Your task to perform on an android device: Open Android settings Image 0: 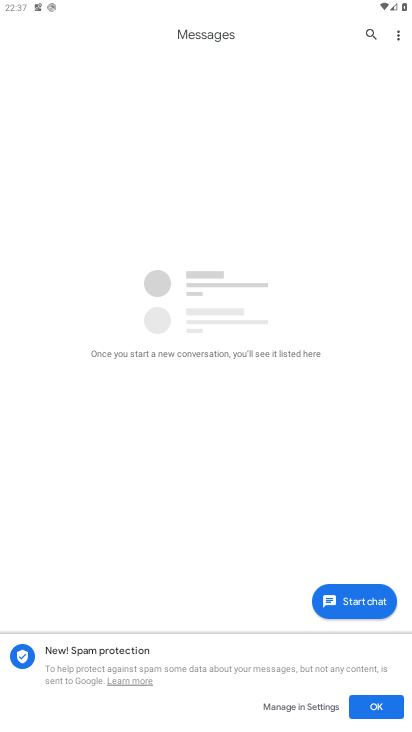
Step 0: press home button
Your task to perform on an android device: Open Android settings Image 1: 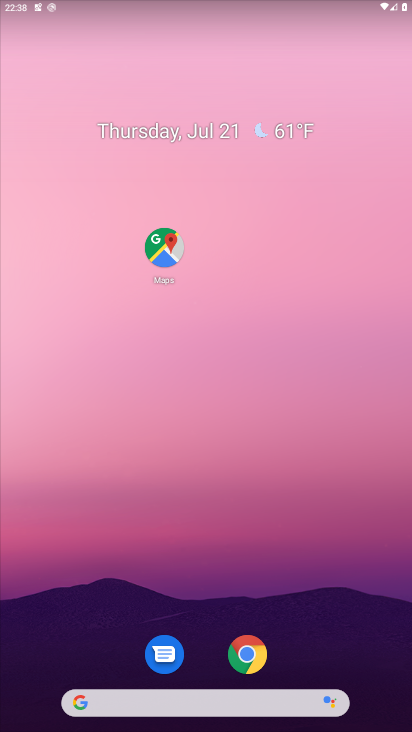
Step 1: drag from (40, 693) to (271, 222)
Your task to perform on an android device: Open Android settings Image 2: 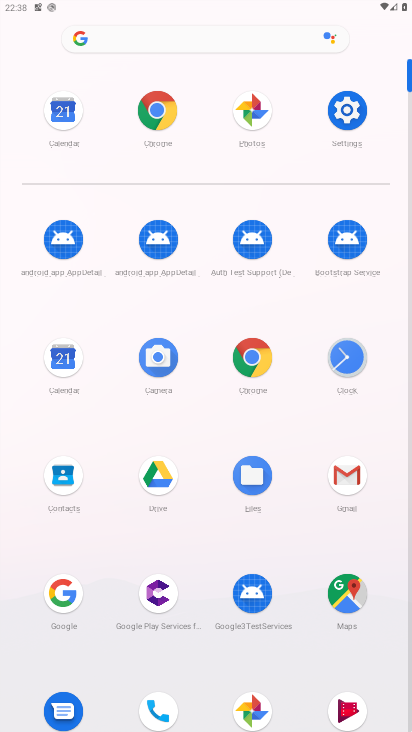
Step 2: click (352, 113)
Your task to perform on an android device: Open Android settings Image 3: 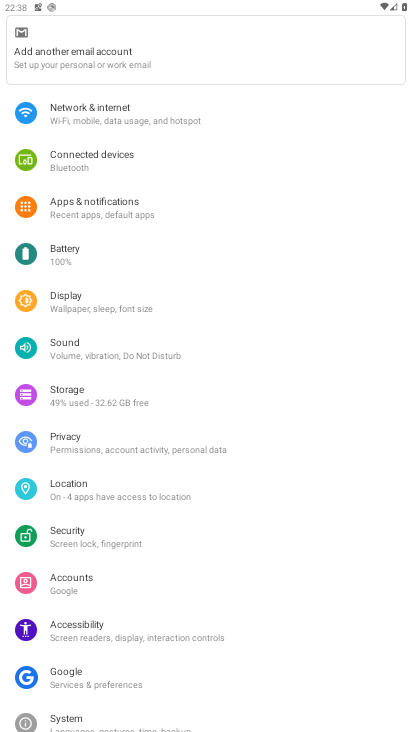
Step 3: drag from (205, 638) to (212, 342)
Your task to perform on an android device: Open Android settings Image 4: 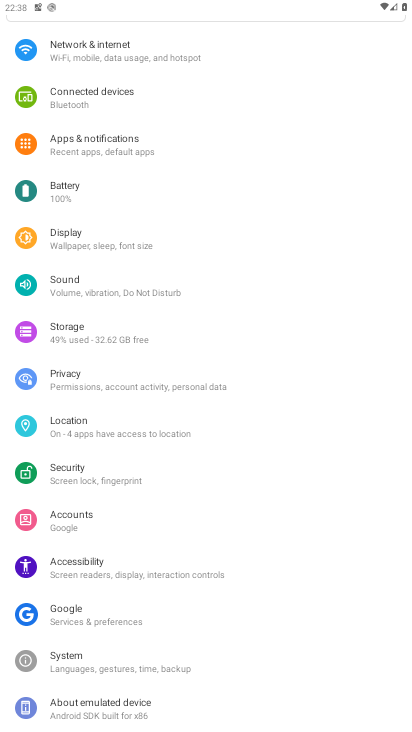
Step 4: drag from (202, 659) to (267, 357)
Your task to perform on an android device: Open Android settings Image 5: 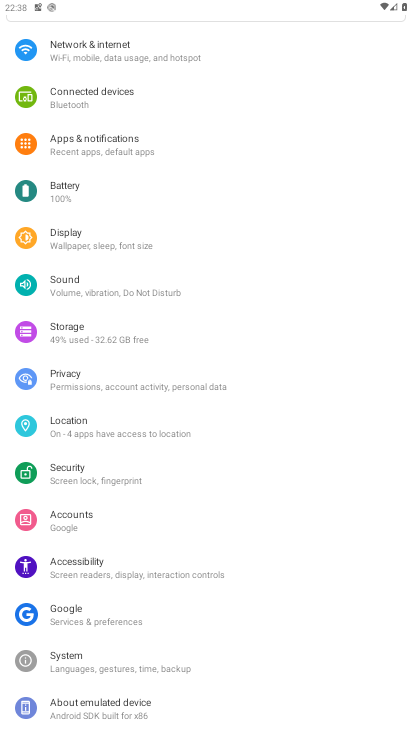
Step 5: click (109, 710)
Your task to perform on an android device: Open Android settings Image 6: 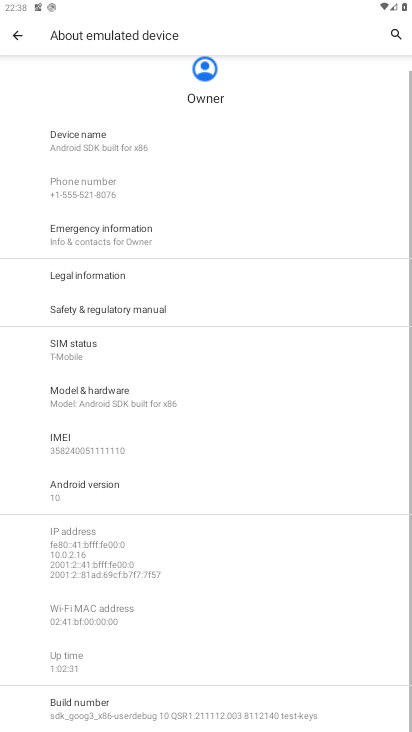
Step 6: click (92, 494)
Your task to perform on an android device: Open Android settings Image 7: 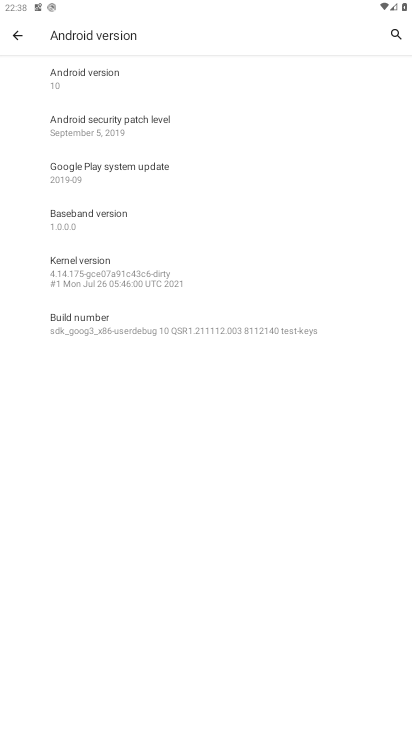
Step 7: task complete